Your task to perform on an android device: Do I have any events today? Image 0: 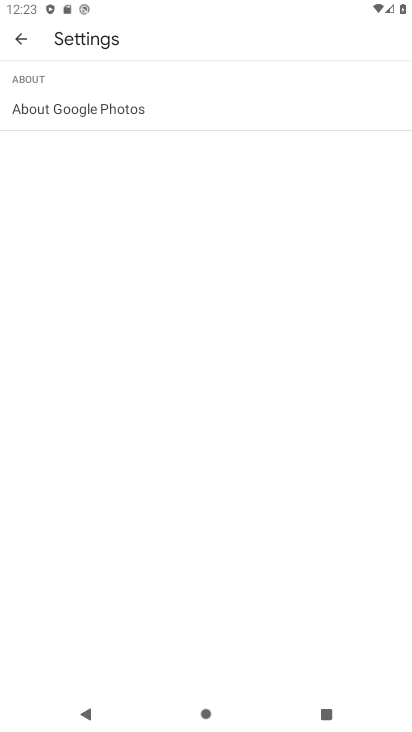
Step 0: press home button
Your task to perform on an android device: Do I have any events today? Image 1: 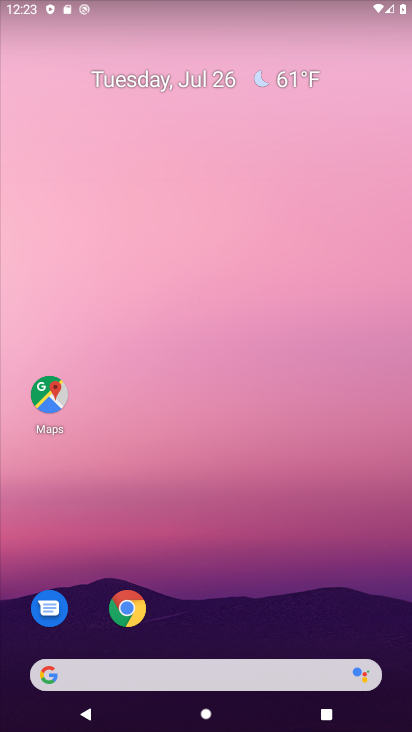
Step 1: drag from (344, 583) to (335, 142)
Your task to perform on an android device: Do I have any events today? Image 2: 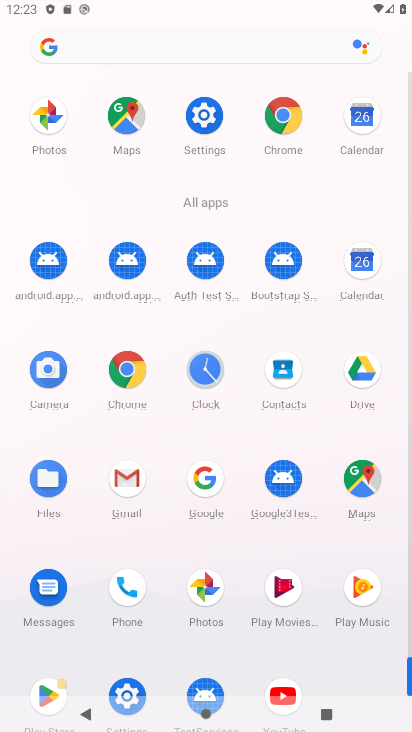
Step 2: click (350, 282)
Your task to perform on an android device: Do I have any events today? Image 3: 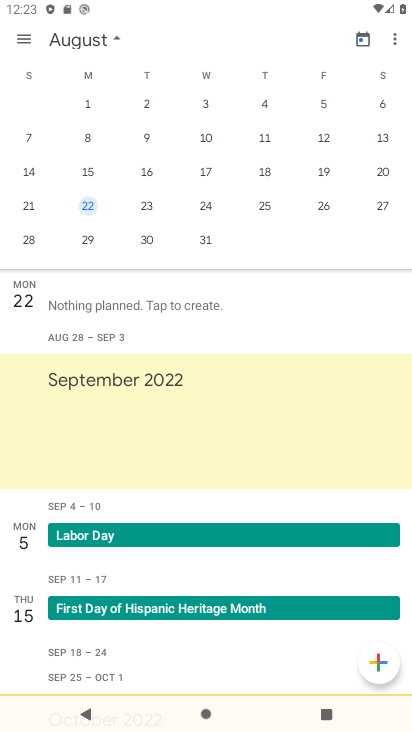
Step 3: drag from (218, 393) to (221, 186)
Your task to perform on an android device: Do I have any events today? Image 4: 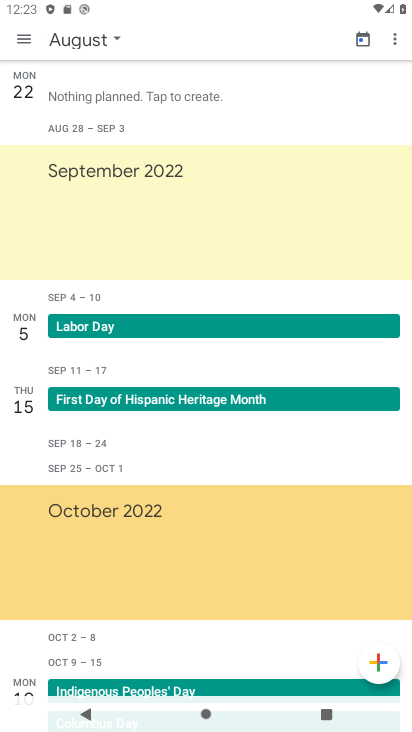
Step 4: drag from (221, 82) to (214, 353)
Your task to perform on an android device: Do I have any events today? Image 5: 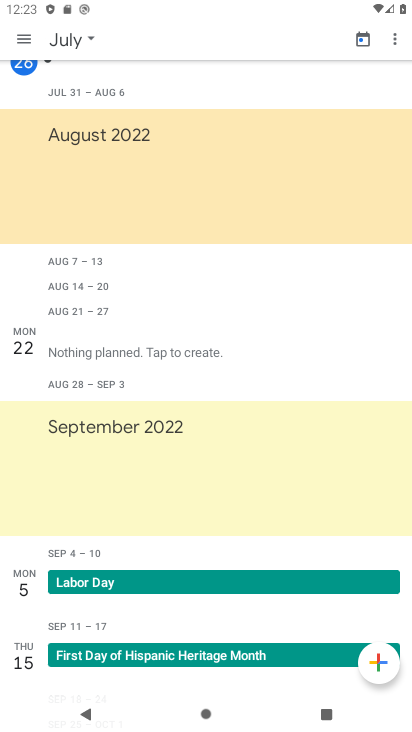
Step 5: drag from (217, 78) to (217, 265)
Your task to perform on an android device: Do I have any events today? Image 6: 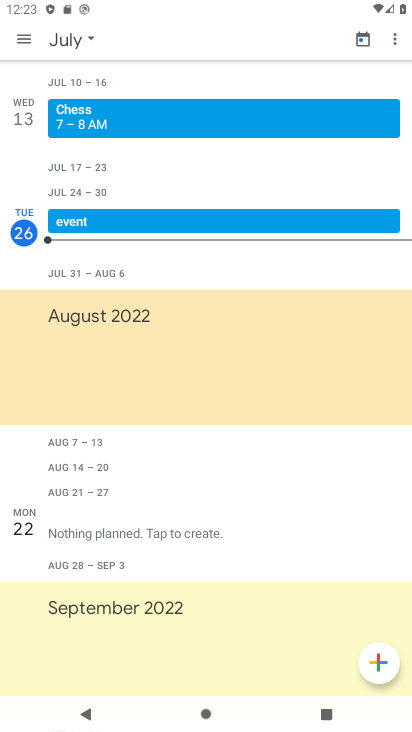
Step 6: click (90, 29)
Your task to perform on an android device: Do I have any events today? Image 7: 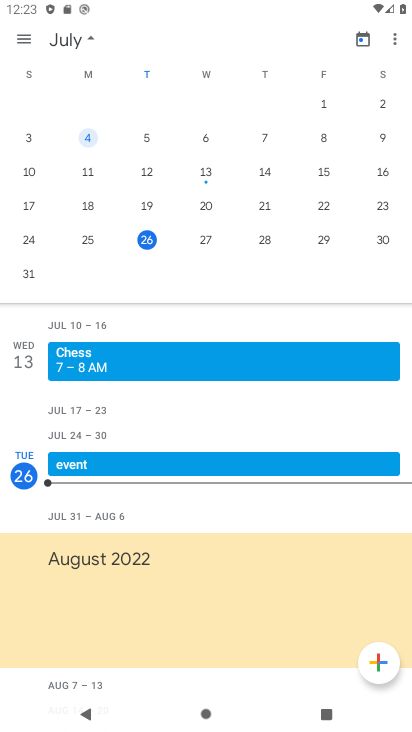
Step 7: click (206, 238)
Your task to perform on an android device: Do I have any events today? Image 8: 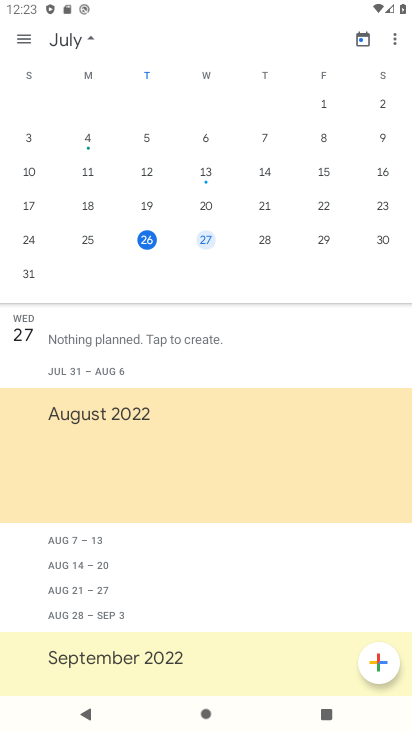
Step 8: click (150, 236)
Your task to perform on an android device: Do I have any events today? Image 9: 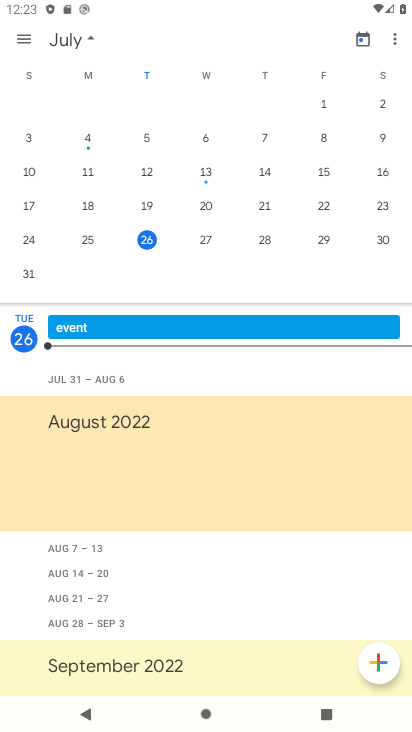
Step 9: click (290, 325)
Your task to perform on an android device: Do I have any events today? Image 10: 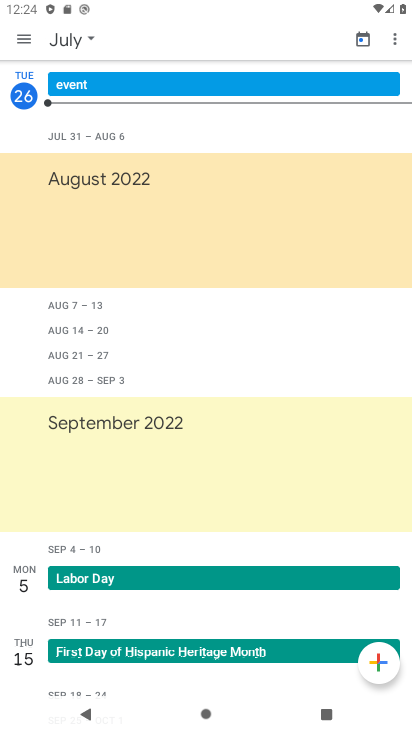
Step 10: click (113, 80)
Your task to perform on an android device: Do I have any events today? Image 11: 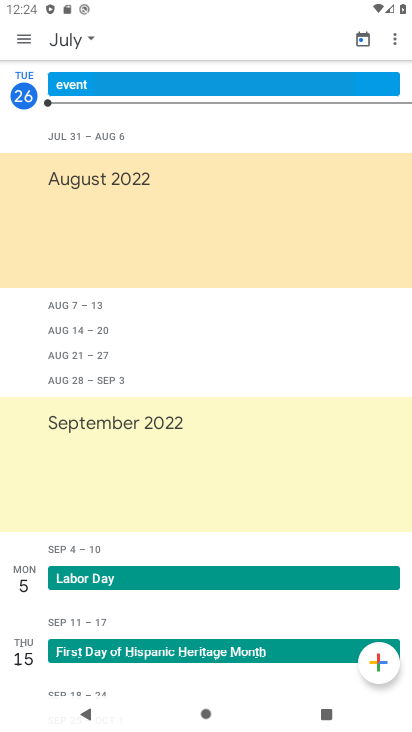
Step 11: click (113, 80)
Your task to perform on an android device: Do I have any events today? Image 12: 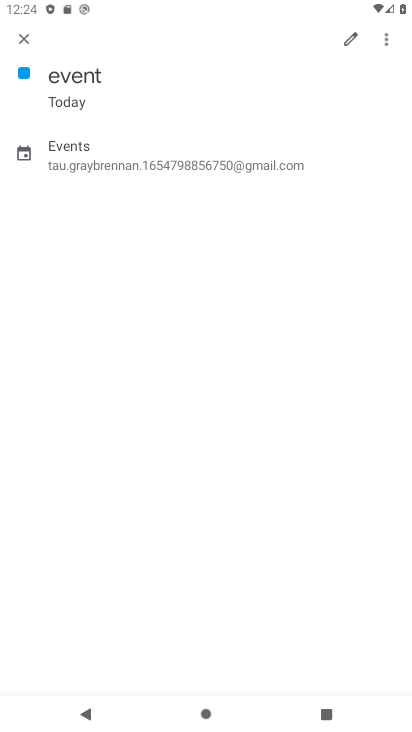
Step 12: task complete